Your task to perform on an android device: Open Reddit.com Image 0: 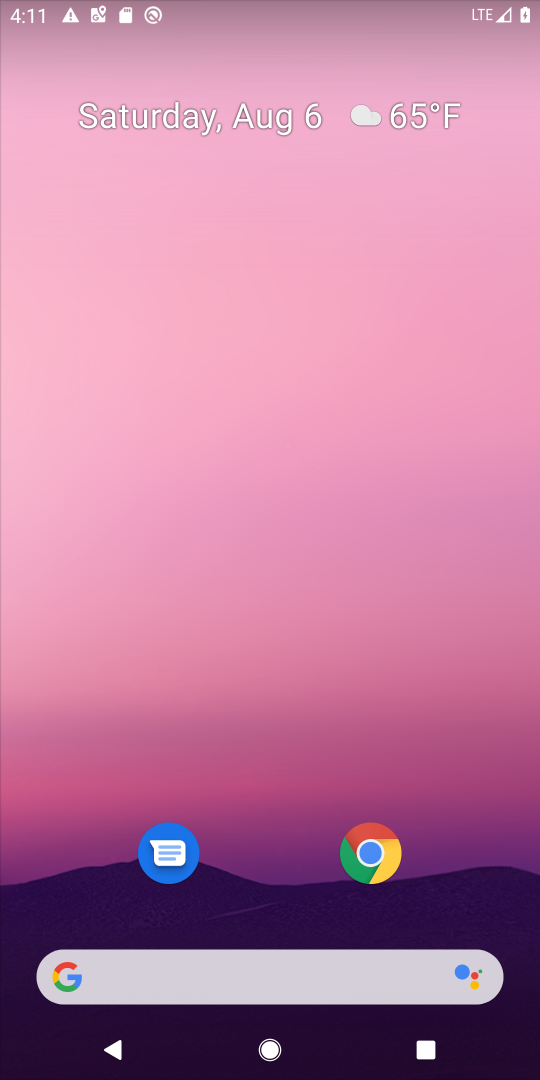
Step 0: click (373, 852)
Your task to perform on an android device: Open Reddit.com Image 1: 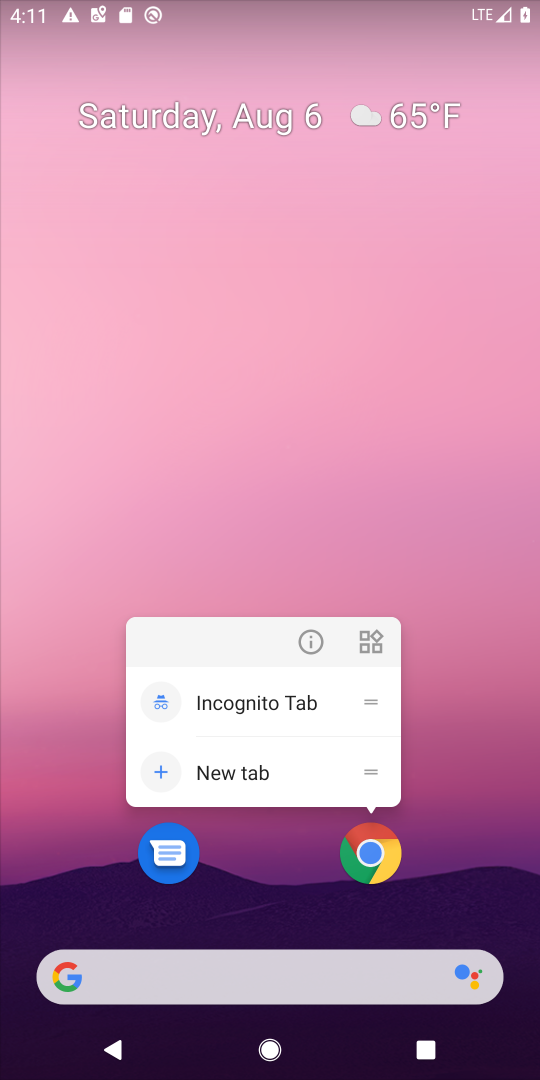
Step 1: click (375, 856)
Your task to perform on an android device: Open Reddit.com Image 2: 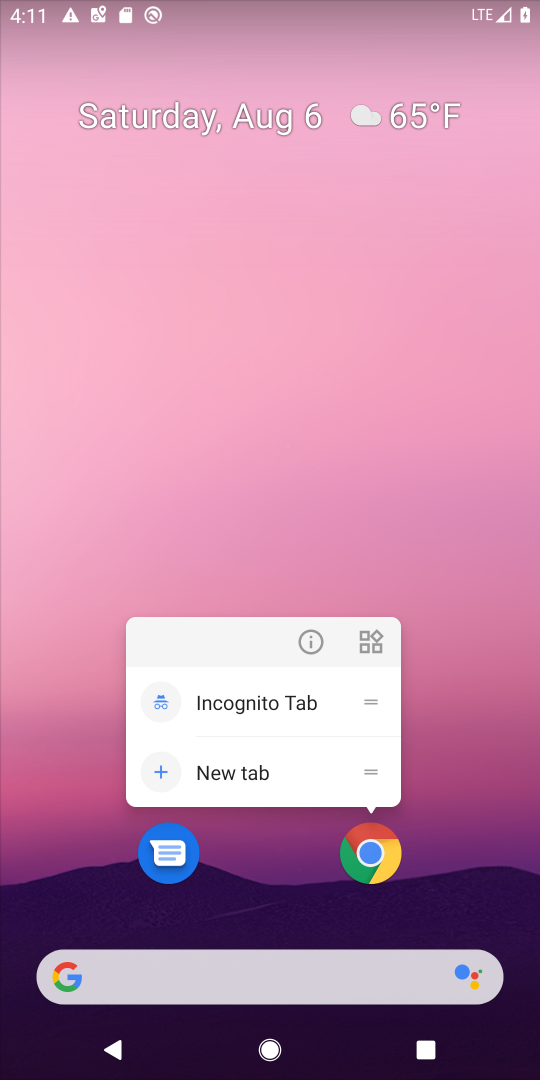
Step 2: click (374, 848)
Your task to perform on an android device: Open Reddit.com Image 3: 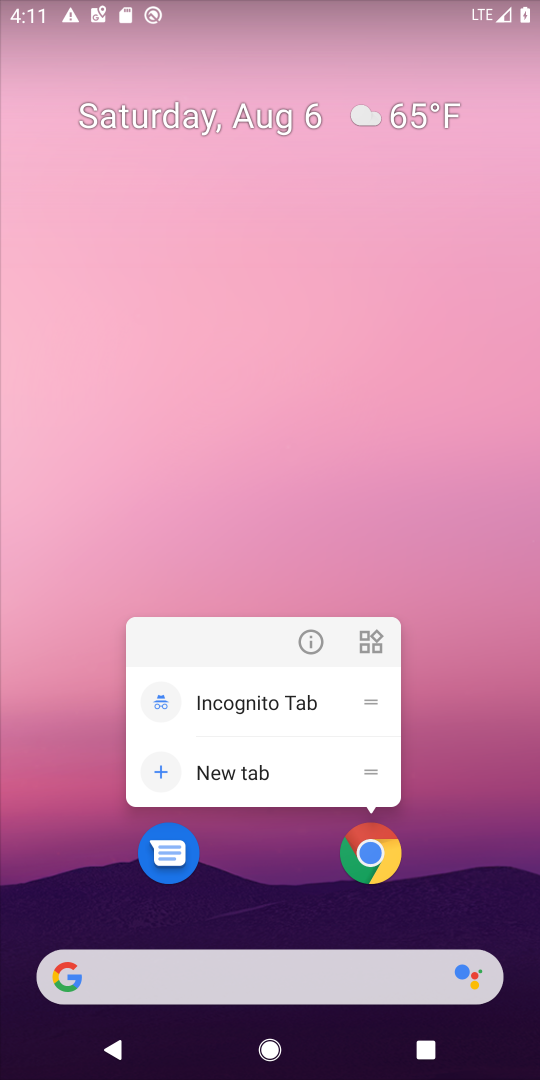
Step 3: click (366, 848)
Your task to perform on an android device: Open Reddit.com Image 4: 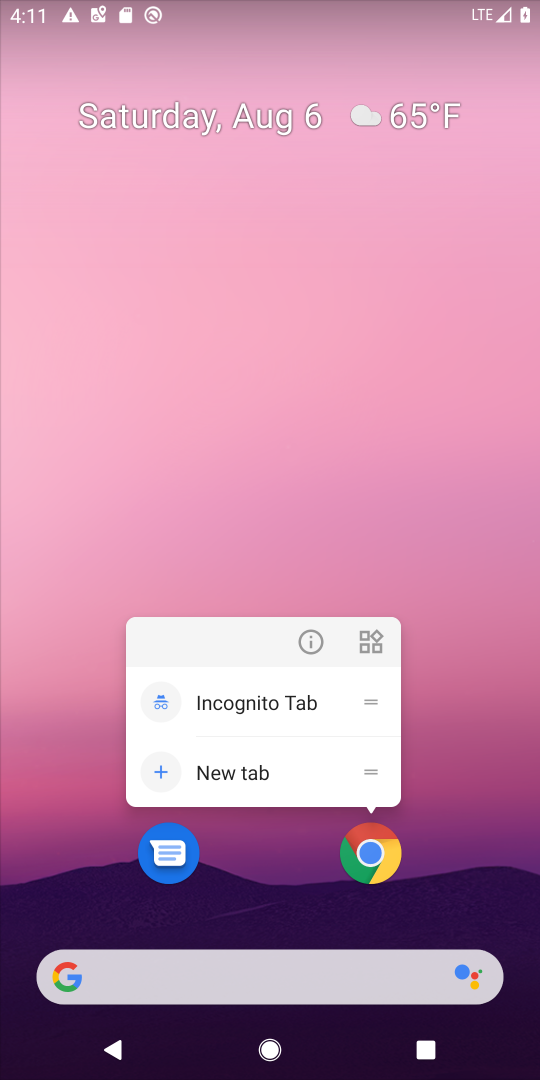
Step 4: click (379, 861)
Your task to perform on an android device: Open Reddit.com Image 5: 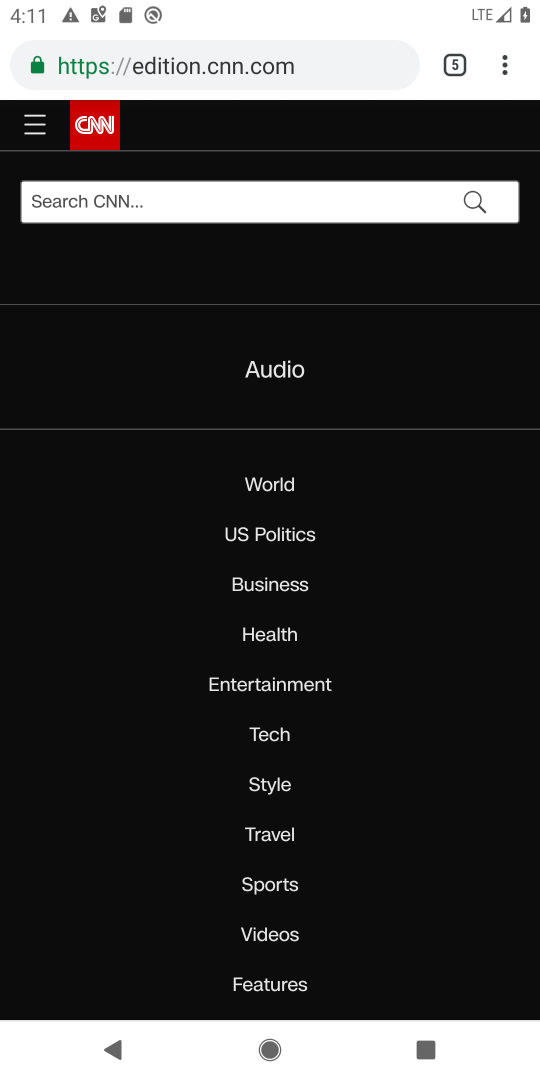
Step 5: click (466, 72)
Your task to perform on an android device: Open Reddit.com Image 6: 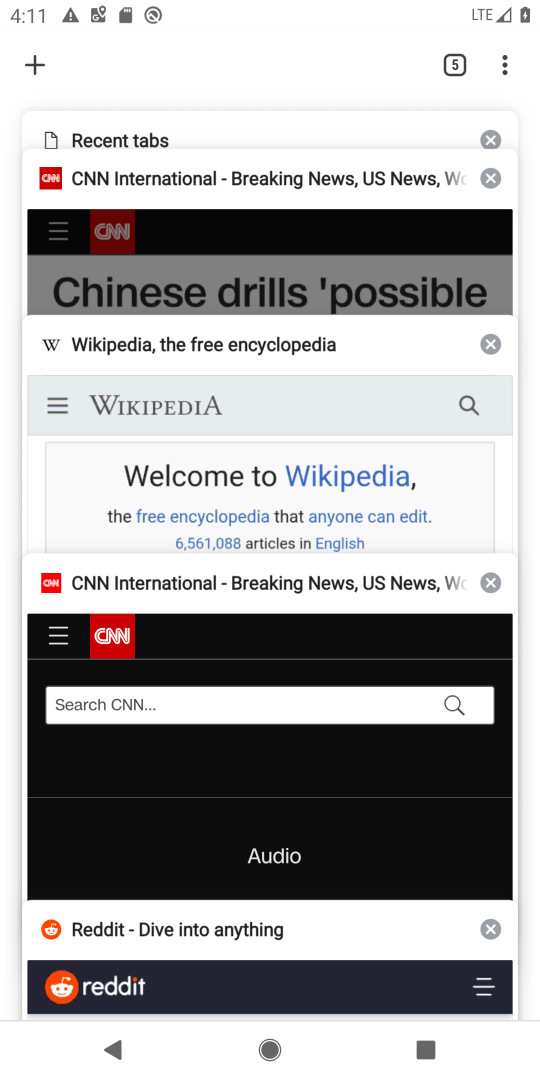
Step 6: click (195, 939)
Your task to perform on an android device: Open Reddit.com Image 7: 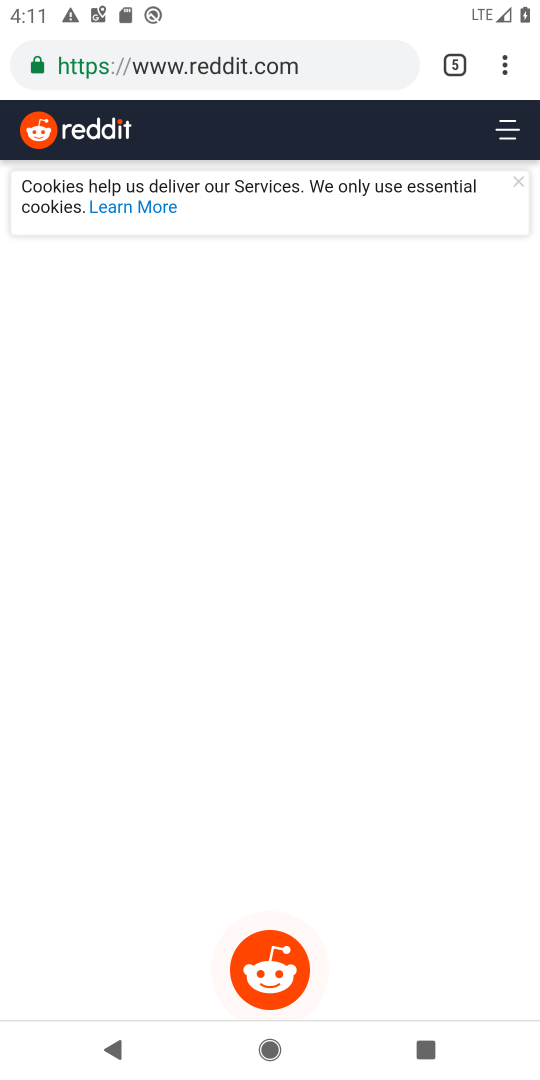
Step 7: task complete